Your task to perform on an android device: Search for seafood restaurants on Google Maps Image 0: 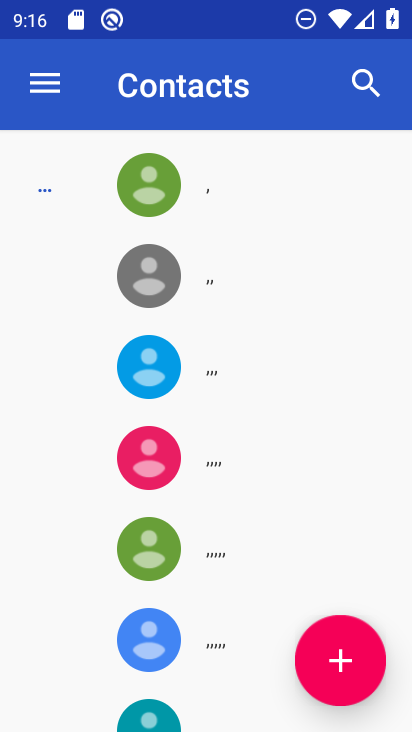
Step 0: press home button
Your task to perform on an android device: Search for seafood restaurants on Google Maps Image 1: 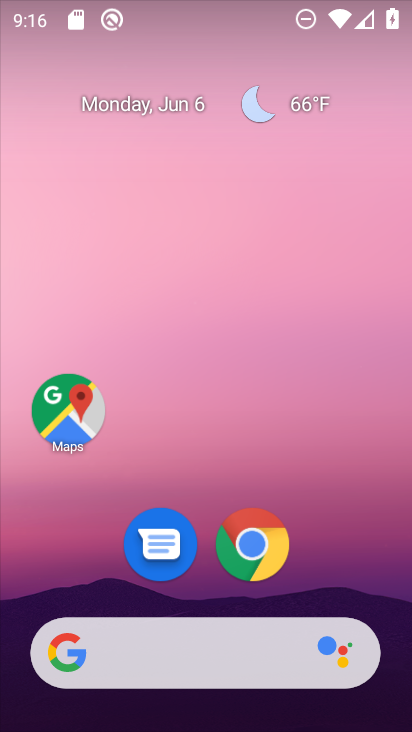
Step 1: drag from (220, 564) to (255, 212)
Your task to perform on an android device: Search for seafood restaurants on Google Maps Image 2: 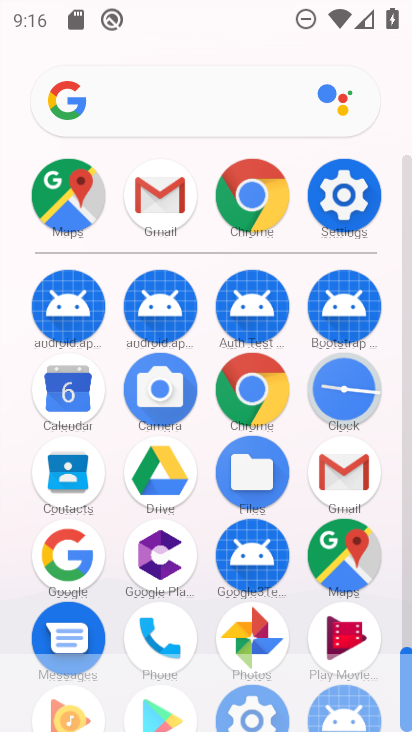
Step 2: click (356, 554)
Your task to perform on an android device: Search for seafood restaurants on Google Maps Image 3: 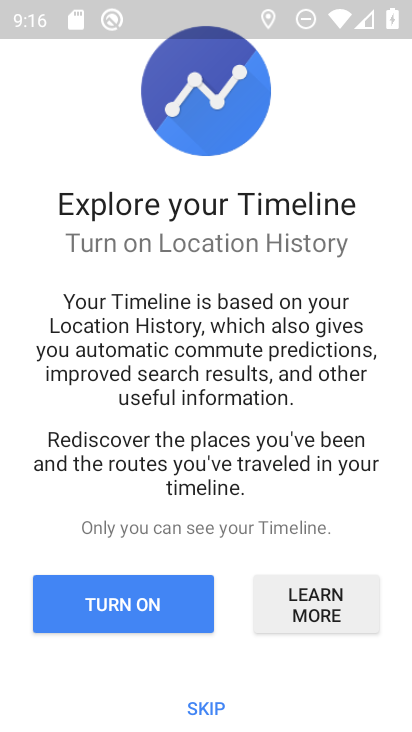
Step 3: click (198, 710)
Your task to perform on an android device: Search for seafood restaurants on Google Maps Image 4: 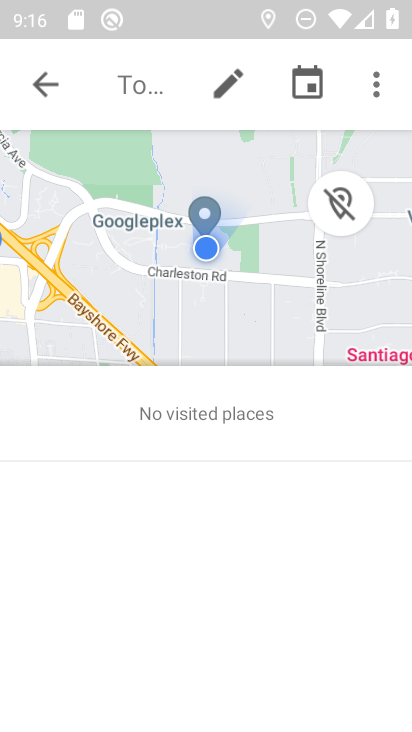
Step 4: click (28, 75)
Your task to perform on an android device: Search for seafood restaurants on Google Maps Image 5: 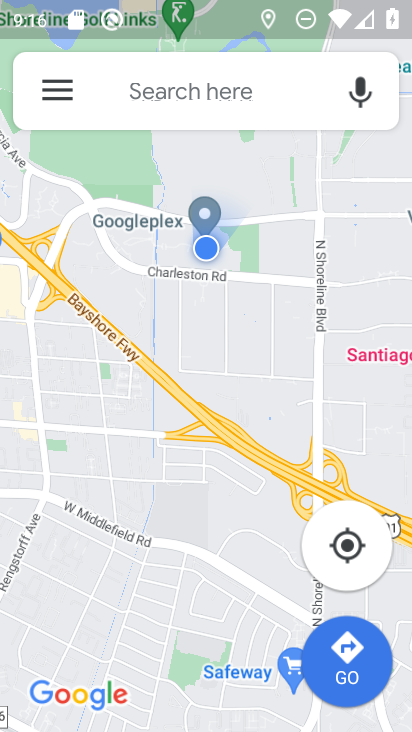
Step 5: click (193, 81)
Your task to perform on an android device: Search for seafood restaurants on Google Maps Image 6: 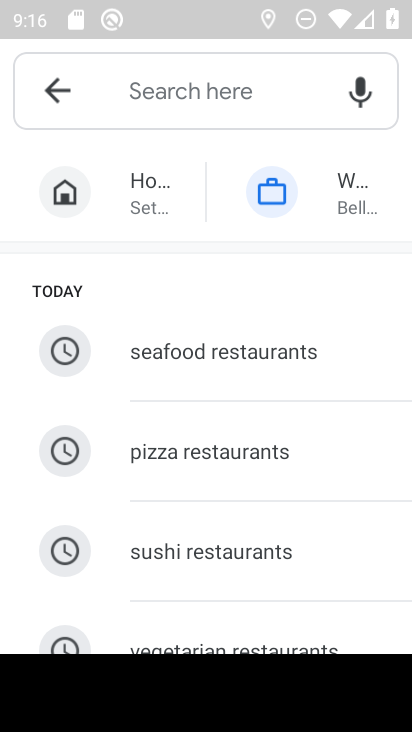
Step 6: type "seafood restaurants"
Your task to perform on an android device: Search for seafood restaurants on Google Maps Image 7: 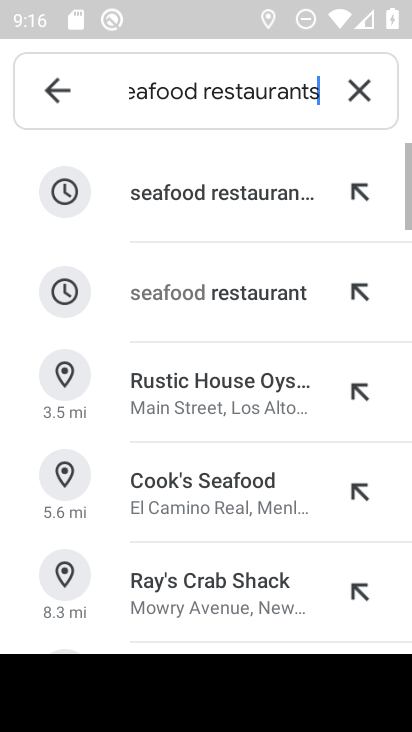
Step 7: click (218, 204)
Your task to perform on an android device: Search for seafood restaurants on Google Maps Image 8: 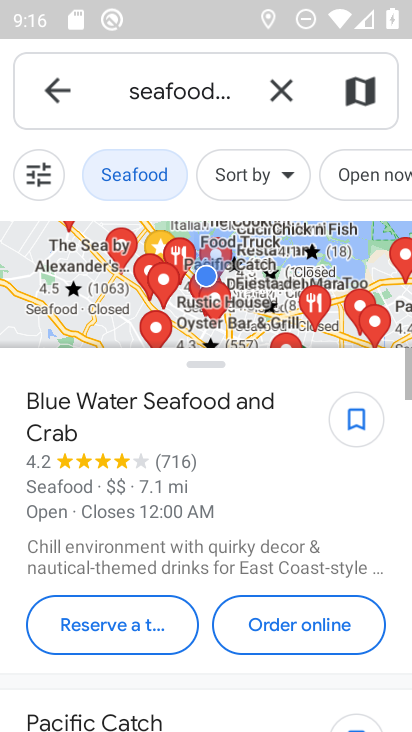
Step 8: task complete